Your task to perform on an android device: snooze an email in the gmail app Image 0: 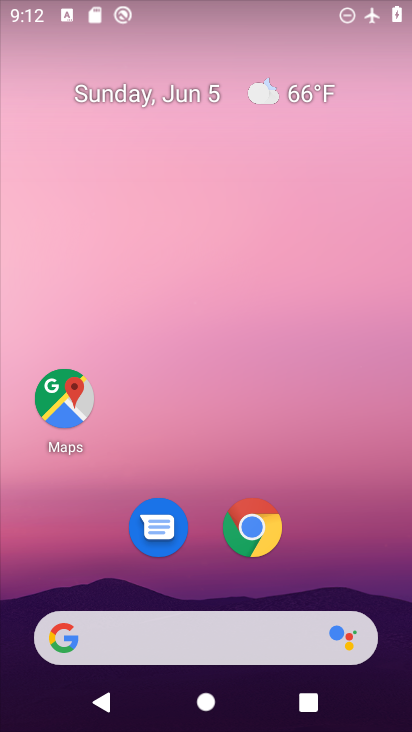
Step 0: drag from (196, 581) to (208, 30)
Your task to perform on an android device: snooze an email in the gmail app Image 1: 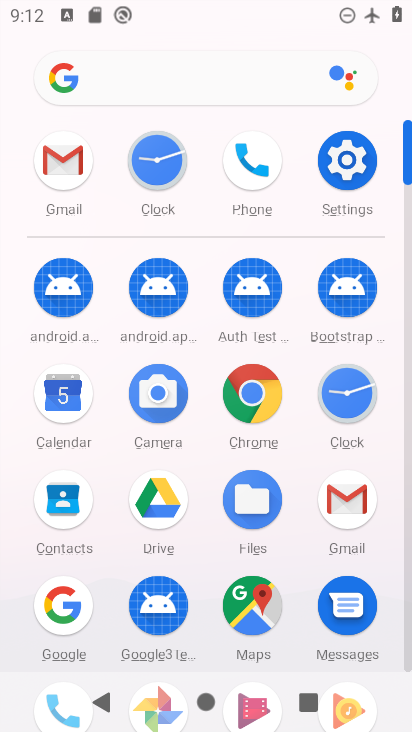
Step 1: click (45, 165)
Your task to perform on an android device: snooze an email in the gmail app Image 2: 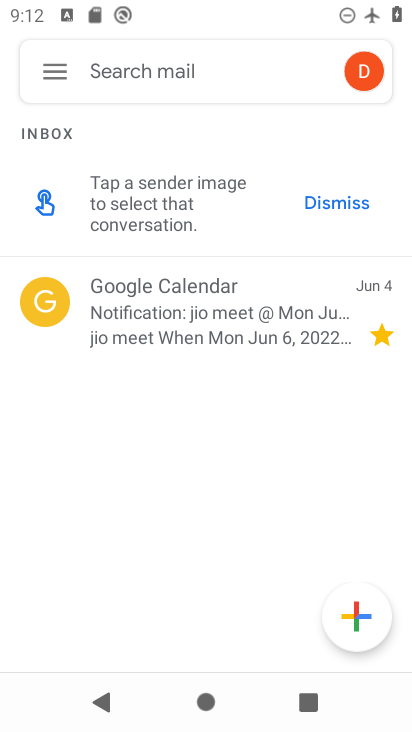
Step 2: click (56, 305)
Your task to perform on an android device: snooze an email in the gmail app Image 3: 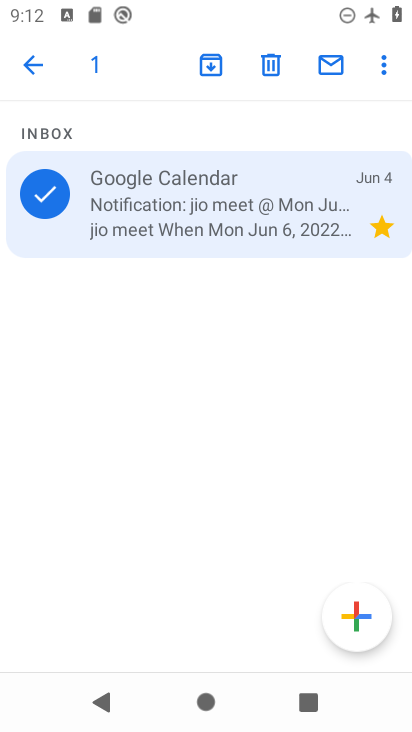
Step 3: click (395, 61)
Your task to perform on an android device: snooze an email in the gmail app Image 4: 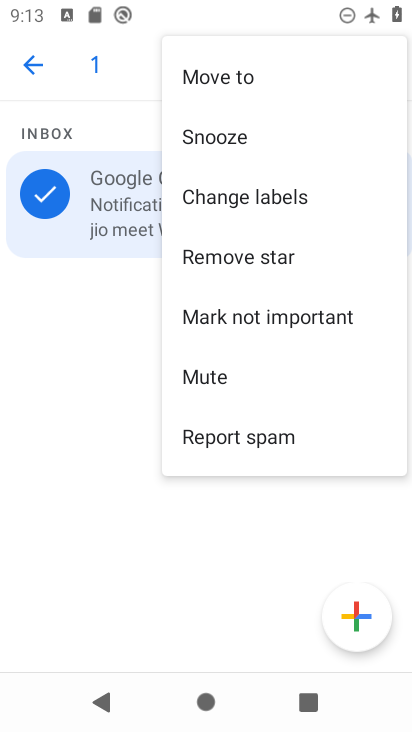
Step 4: click (259, 147)
Your task to perform on an android device: snooze an email in the gmail app Image 5: 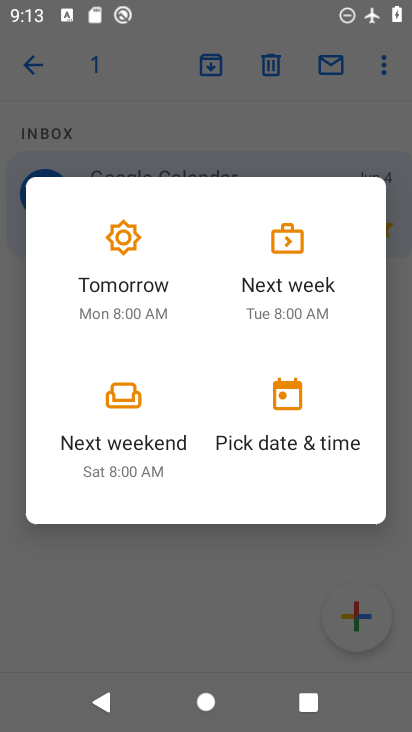
Step 5: click (292, 302)
Your task to perform on an android device: snooze an email in the gmail app Image 6: 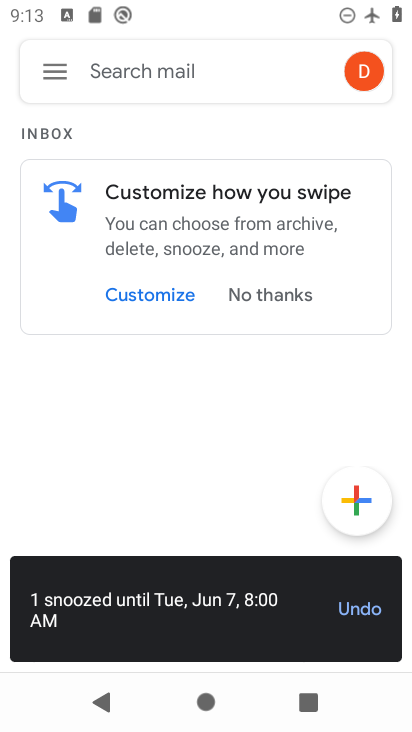
Step 6: task complete